Your task to perform on an android device: turn notification dots on Image 0: 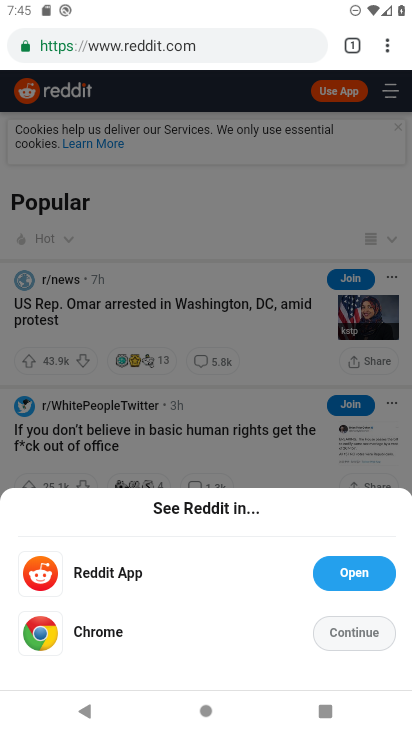
Step 0: press home button
Your task to perform on an android device: turn notification dots on Image 1: 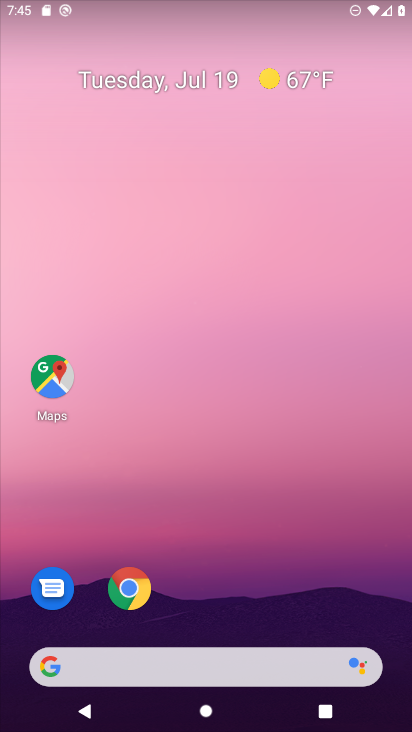
Step 1: drag from (320, 567) to (363, 93)
Your task to perform on an android device: turn notification dots on Image 2: 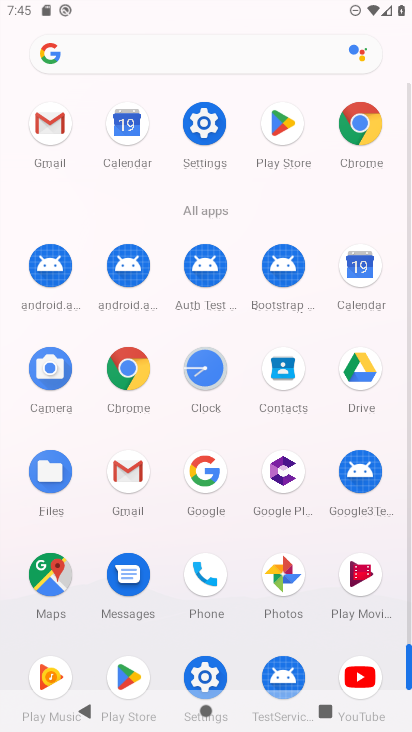
Step 2: click (215, 130)
Your task to perform on an android device: turn notification dots on Image 3: 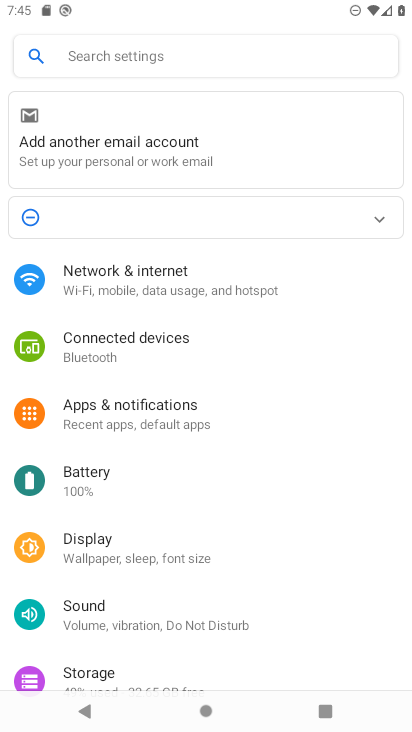
Step 3: drag from (358, 509) to (361, 387)
Your task to perform on an android device: turn notification dots on Image 4: 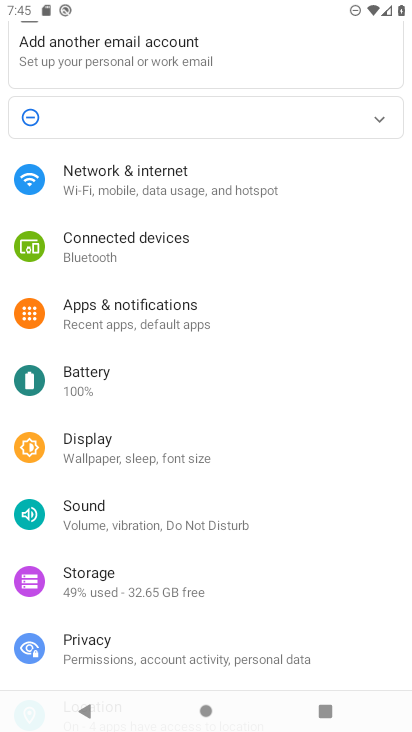
Step 4: drag from (359, 497) to (349, 375)
Your task to perform on an android device: turn notification dots on Image 5: 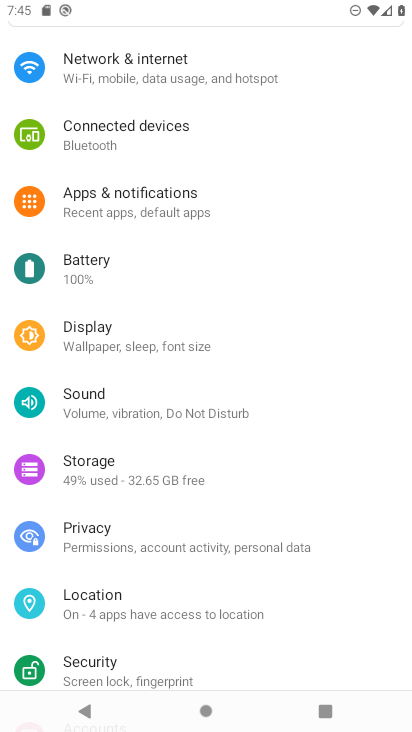
Step 5: drag from (349, 490) to (359, 341)
Your task to perform on an android device: turn notification dots on Image 6: 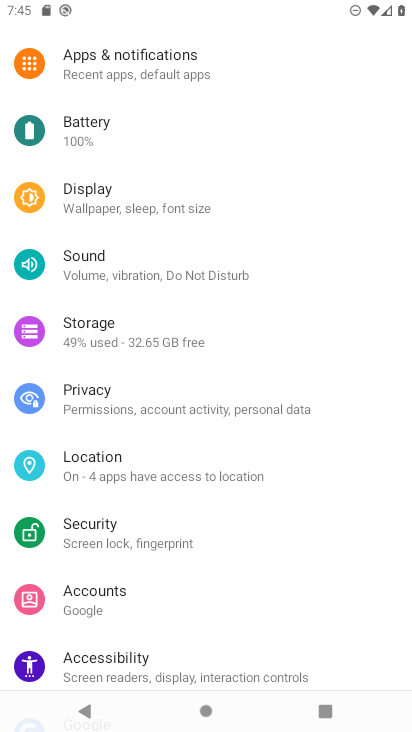
Step 6: drag from (354, 464) to (347, 347)
Your task to perform on an android device: turn notification dots on Image 7: 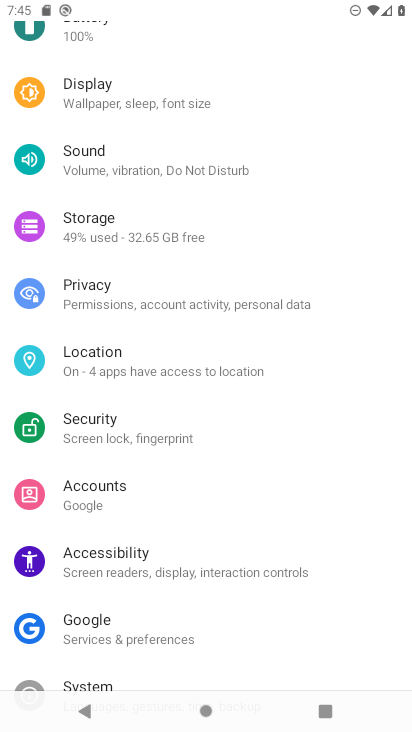
Step 7: drag from (344, 272) to (342, 345)
Your task to perform on an android device: turn notification dots on Image 8: 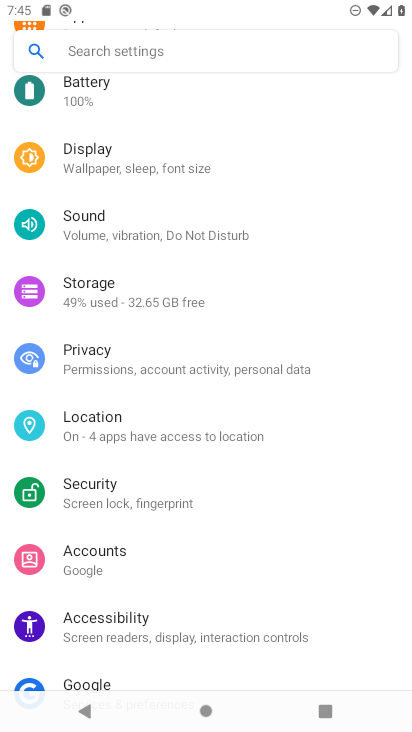
Step 8: drag from (347, 259) to (346, 347)
Your task to perform on an android device: turn notification dots on Image 9: 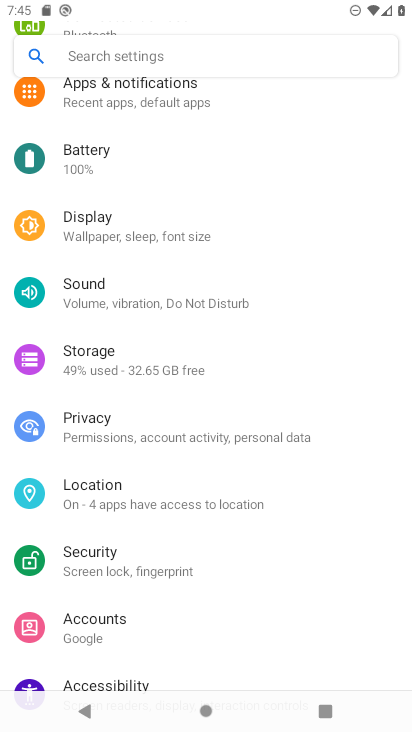
Step 9: drag from (338, 244) to (339, 334)
Your task to perform on an android device: turn notification dots on Image 10: 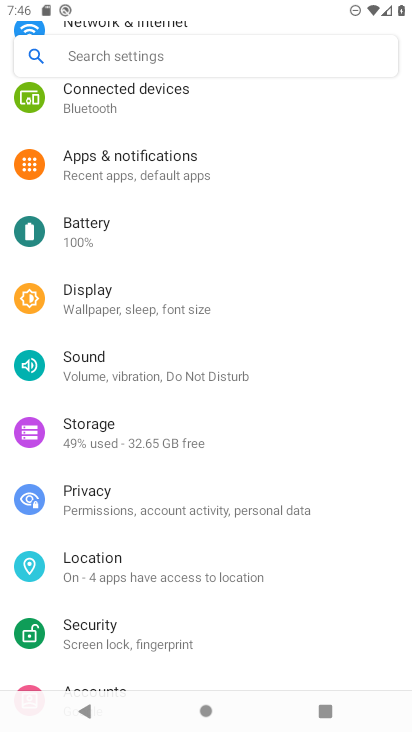
Step 10: drag from (329, 200) to (340, 288)
Your task to perform on an android device: turn notification dots on Image 11: 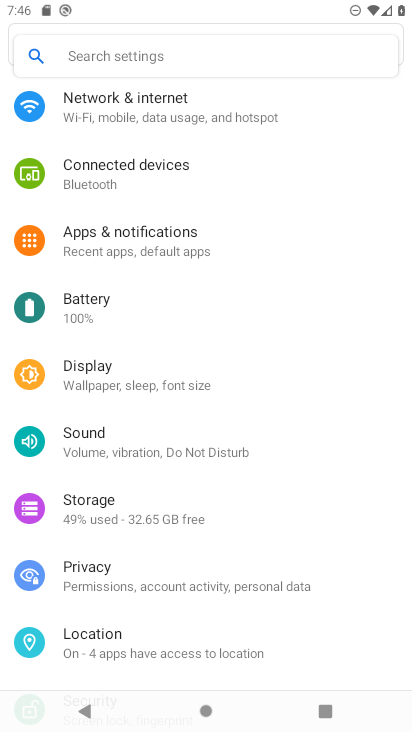
Step 11: drag from (333, 180) to (339, 331)
Your task to perform on an android device: turn notification dots on Image 12: 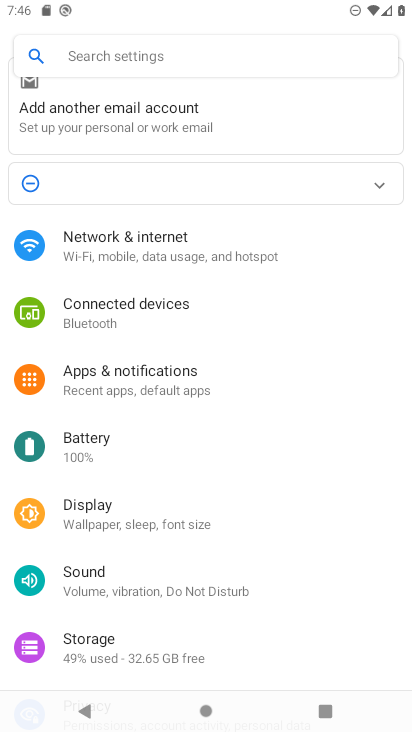
Step 12: click (222, 382)
Your task to perform on an android device: turn notification dots on Image 13: 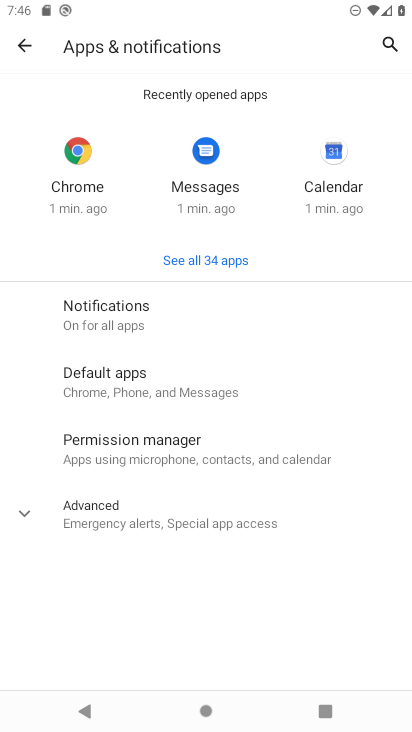
Step 13: click (143, 318)
Your task to perform on an android device: turn notification dots on Image 14: 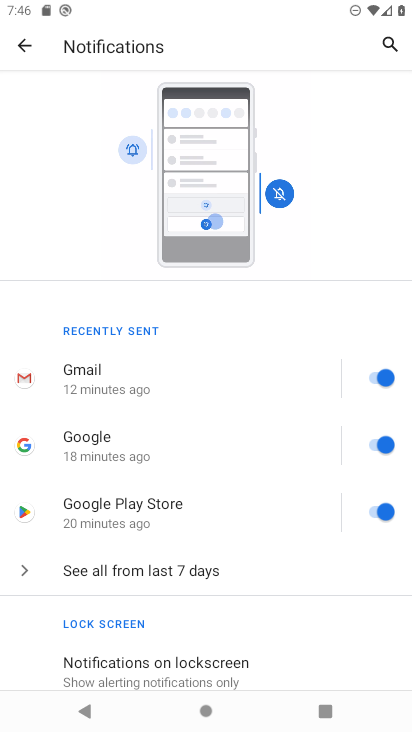
Step 14: drag from (309, 507) to (305, 386)
Your task to perform on an android device: turn notification dots on Image 15: 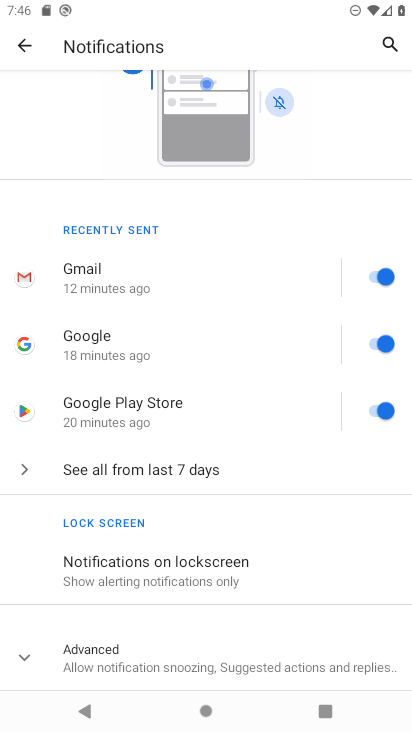
Step 15: drag from (284, 533) to (278, 427)
Your task to perform on an android device: turn notification dots on Image 16: 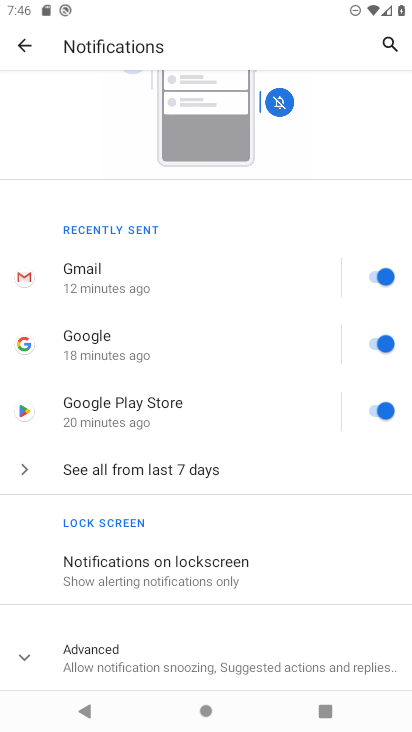
Step 16: click (271, 646)
Your task to perform on an android device: turn notification dots on Image 17: 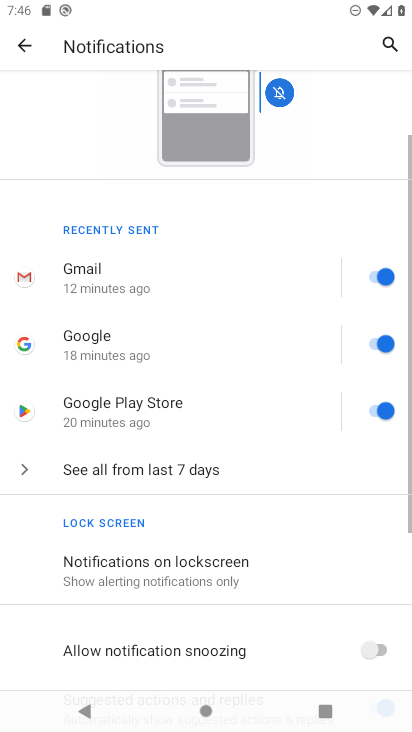
Step 17: task complete